Your task to perform on an android device: turn on sleep mode Image 0: 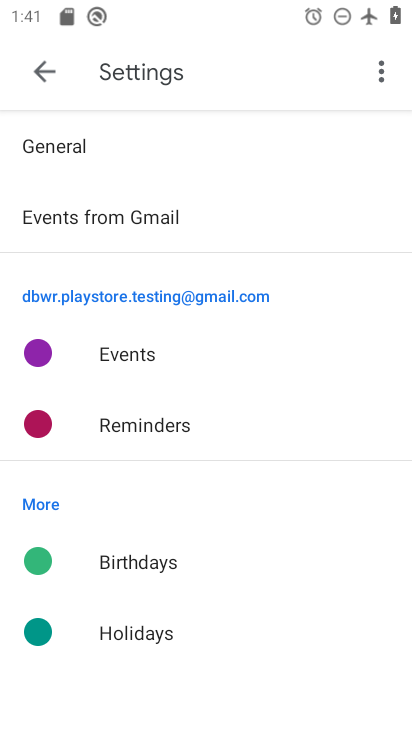
Step 0: press home button
Your task to perform on an android device: turn on sleep mode Image 1: 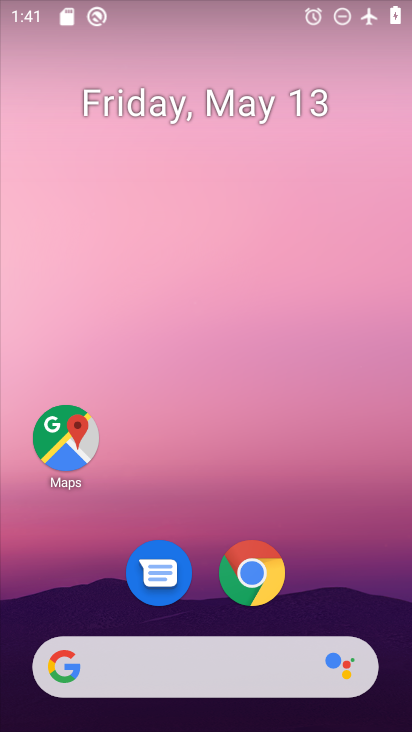
Step 1: drag from (212, 691) to (269, 69)
Your task to perform on an android device: turn on sleep mode Image 2: 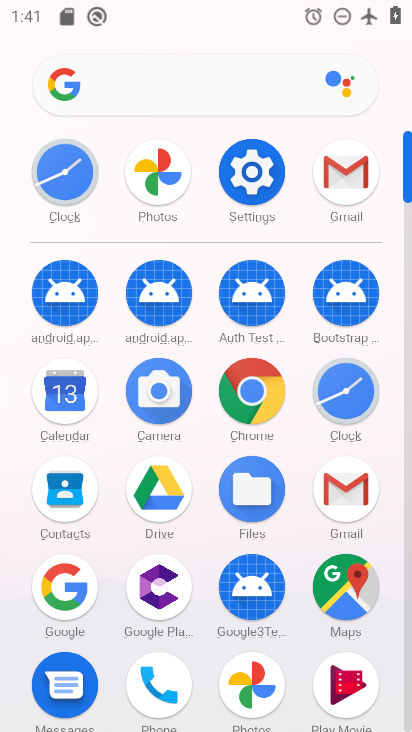
Step 2: click (258, 168)
Your task to perform on an android device: turn on sleep mode Image 3: 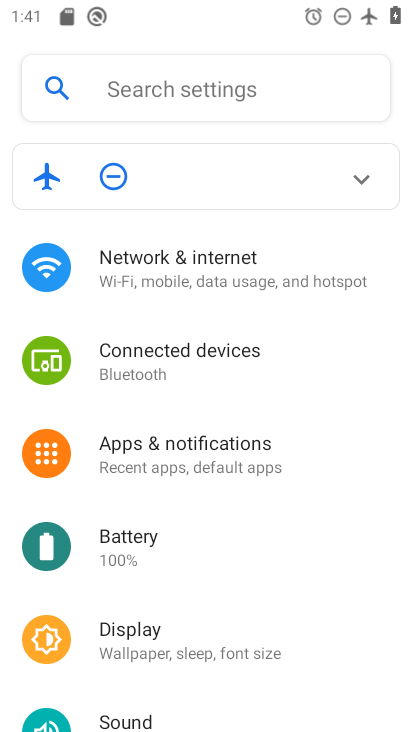
Step 3: click (208, 650)
Your task to perform on an android device: turn on sleep mode Image 4: 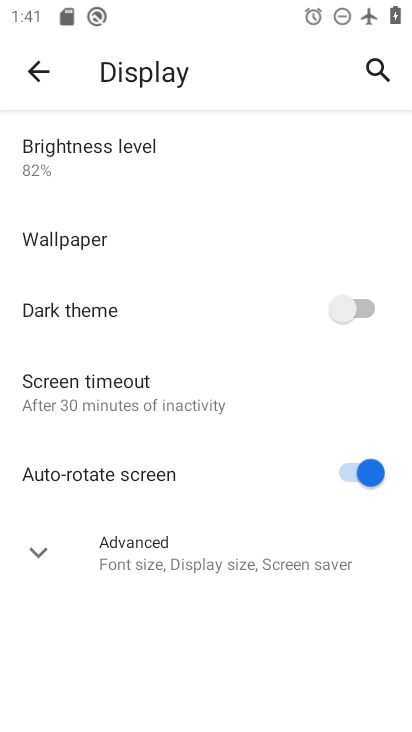
Step 4: click (261, 667)
Your task to perform on an android device: turn on sleep mode Image 5: 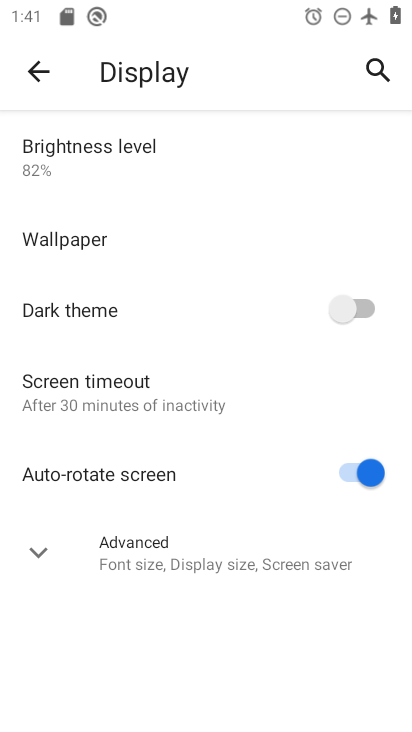
Step 5: task complete